Your task to perform on an android device: Search for sushi restaurants on Maps Image 0: 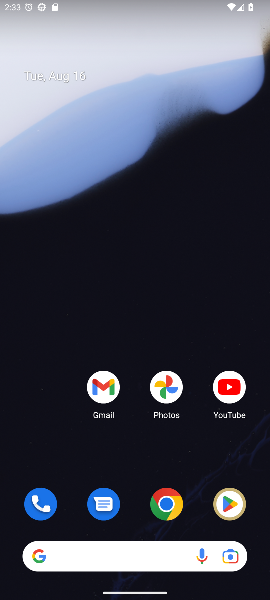
Step 0: drag from (132, 520) to (133, 92)
Your task to perform on an android device: Search for sushi restaurants on Maps Image 1: 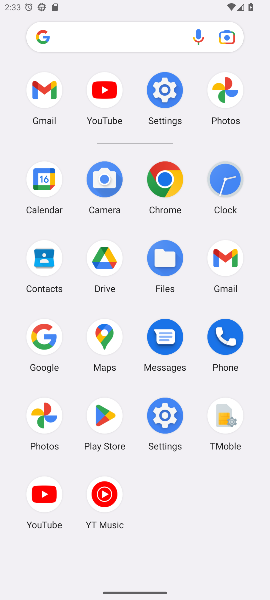
Step 1: click (104, 333)
Your task to perform on an android device: Search for sushi restaurants on Maps Image 2: 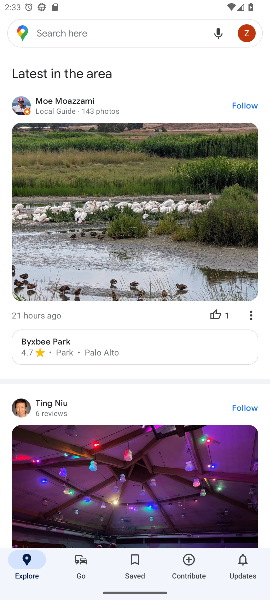
Step 2: click (107, 34)
Your task to perform on an android device: Search for sushi restaurants on Maps Image 3: 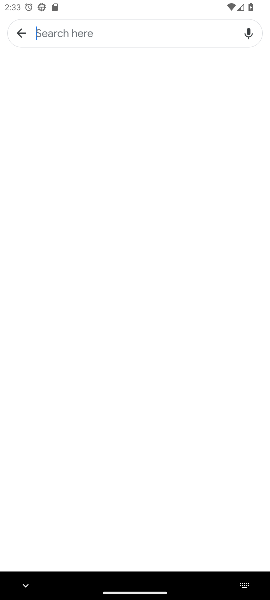
Step 3: type "sushi restaurants"
Your task to perform on an android device: Search for sushi restaurants on Maps Image 4: 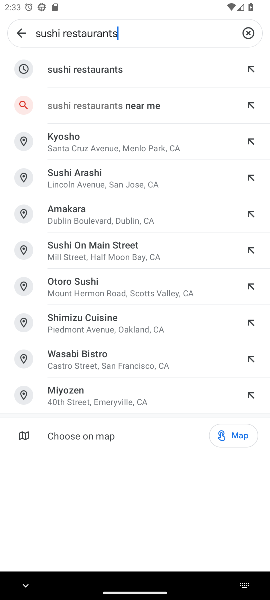
Step 4: click (82, 70)
Your task to perform on an android device: Search for sushi restaurants on Maps Image 5: 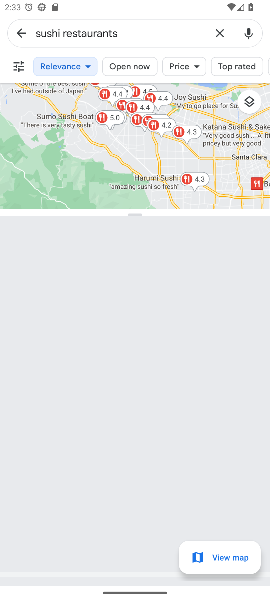
Step 5: task complete